Your task to perform on an android device: check data usage Image 0: 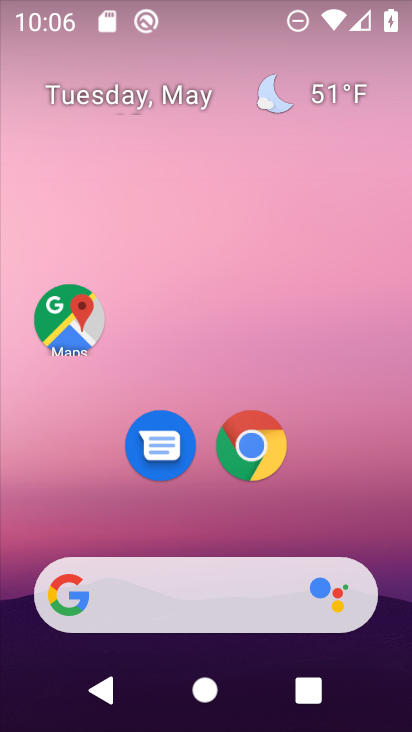
Step 0: drag from (144, 594) to (59, 52)
Your task to perform on an android device: check data usage Image 1: 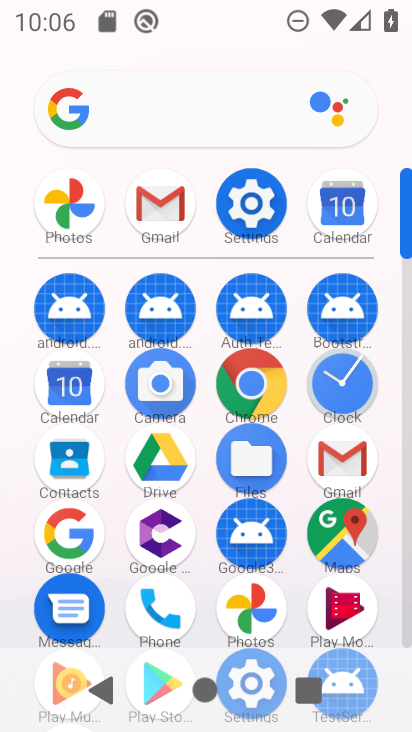
Step 1: click (233, 194)
Your task to perform on an android device: check data usage Image 2: 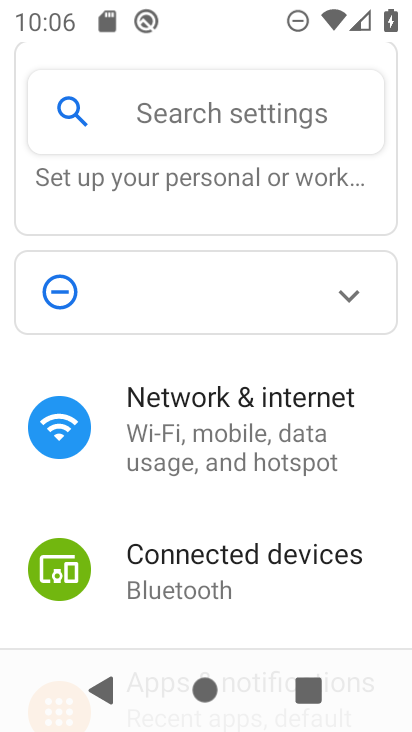
Step 2: click (183, 469)
Your task to perform on an android device: check data usage Image 3: 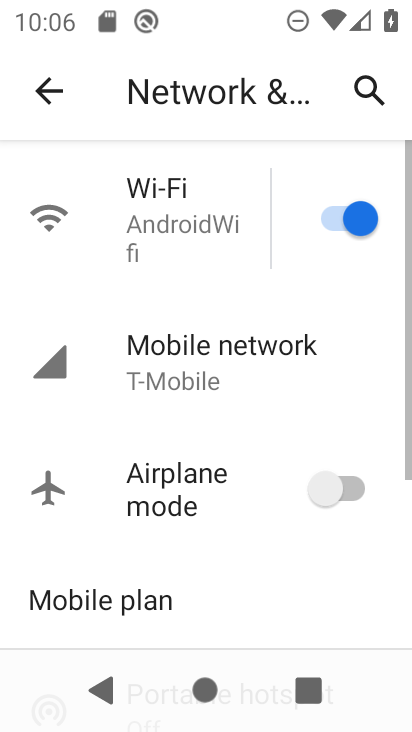
Step 3: click (215, 358)
Your task to perform on an android device: check data usage Image 4: 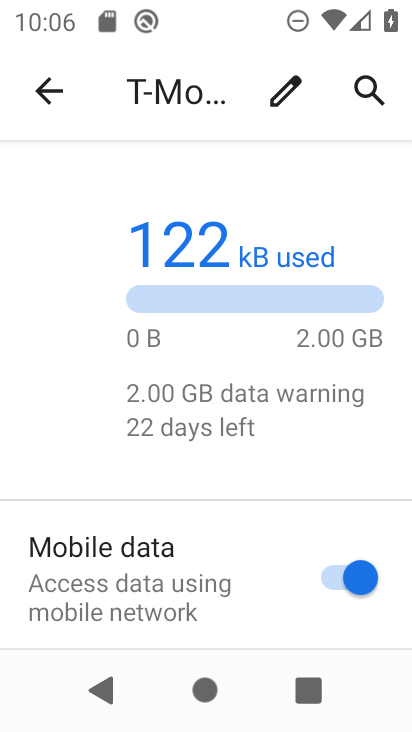
Step 4: task complete